Your task to perform on an android device: turn on airplane mode Image 0: 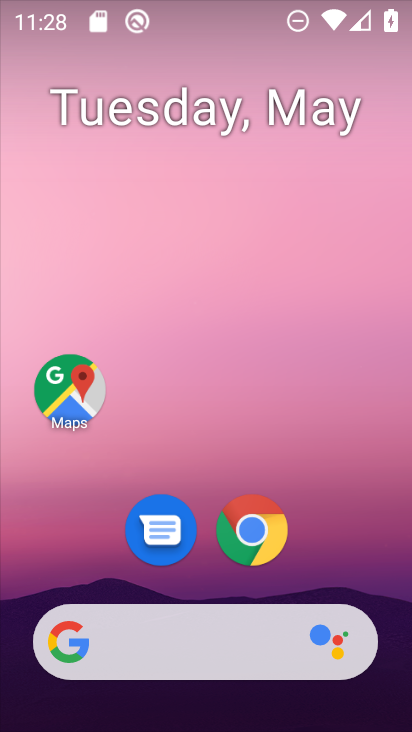
Step 0: drag from (343, 513) to (274, 26)
Your task to perform on an android device: turn on airplane mode Image 1: 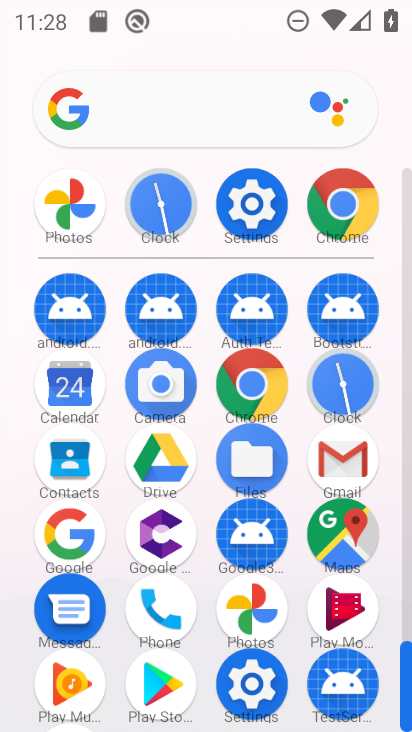
Step 1: click (239, 179)
Your task to perform on an android device: turn on airplane mode Image 2: 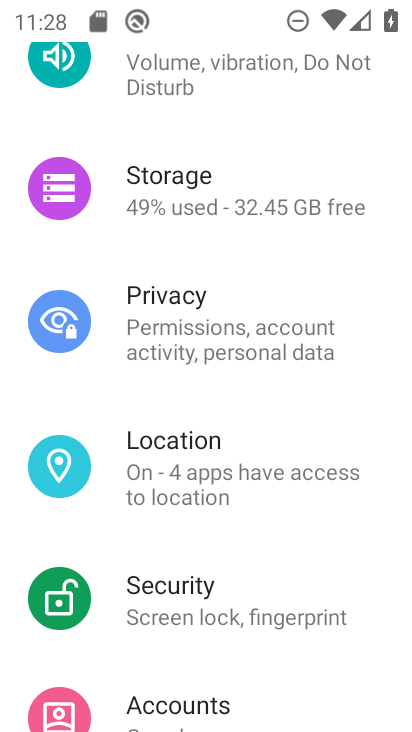
Step 2: drag from (240, 153) to (231, 493)
Your task to perform on an android device: turn on airplane mode Image 3: 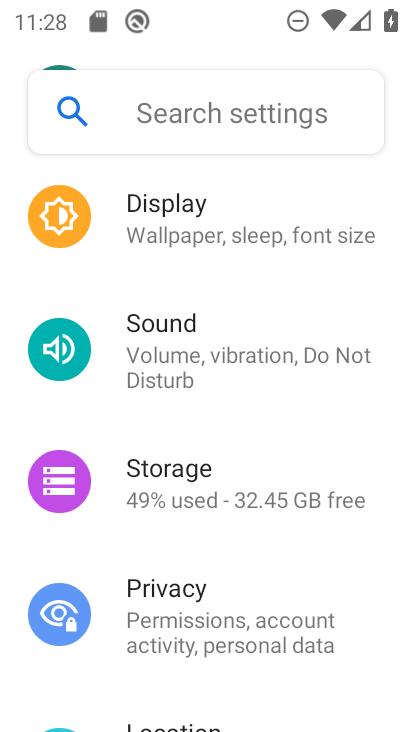
Step 3: drag from (227, 184) to (251, 486)
Your task to perform on an android device: turn on airplane mode Image 4: 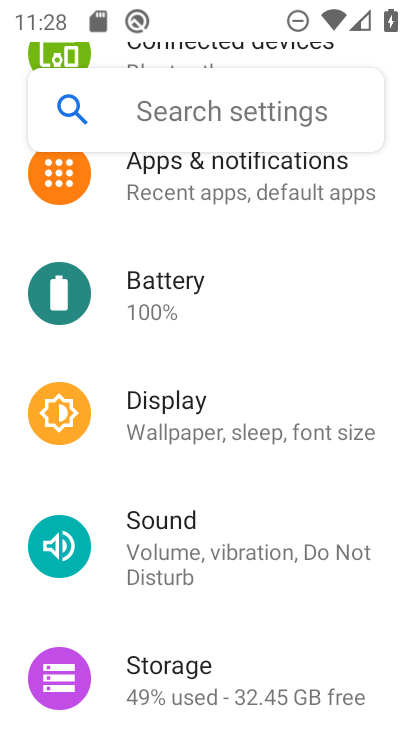
Step 4: drag from (237, 277) to (248, 519)
Your task to perform on an android device: turn on airplane mode Image 5: 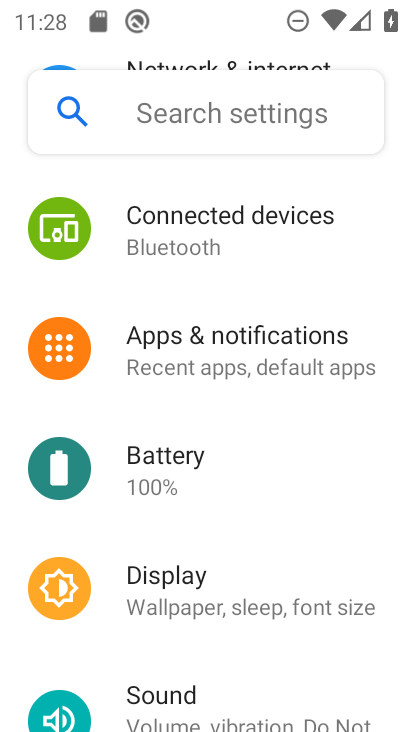
Step 5: drag from (243, 229) to (265, 644)
Your task to perform on an android device: turn on airplane mode Image 6: 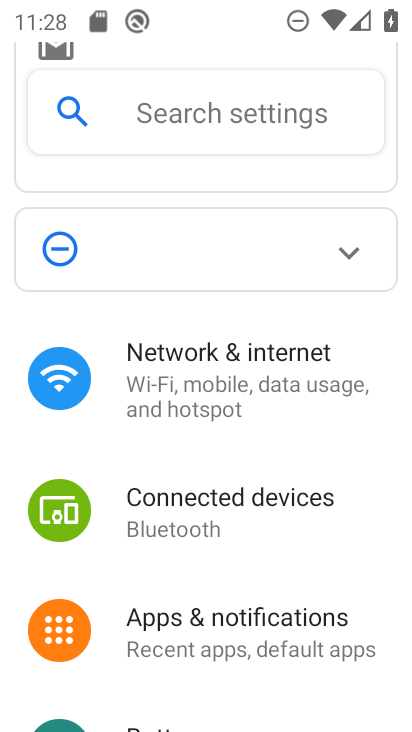
Step 6: click (244, 374)
Your task to perform on an android device: turn on airplane mode Image 7: 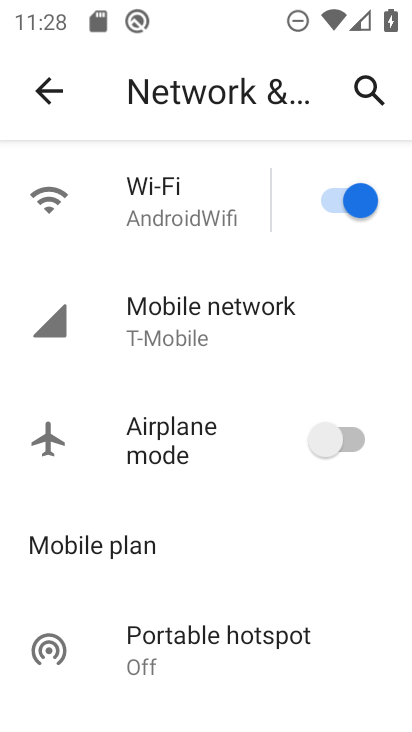
Step 7: click (354, 441)
Your task to perform on an android device: turn on airplane mode Image 8: 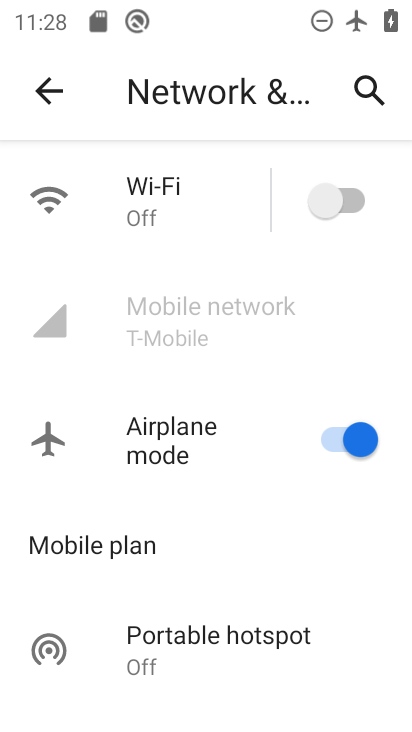
Step 8: press home button
Your task to perform on an android device: turn on airplane mode Image 9: 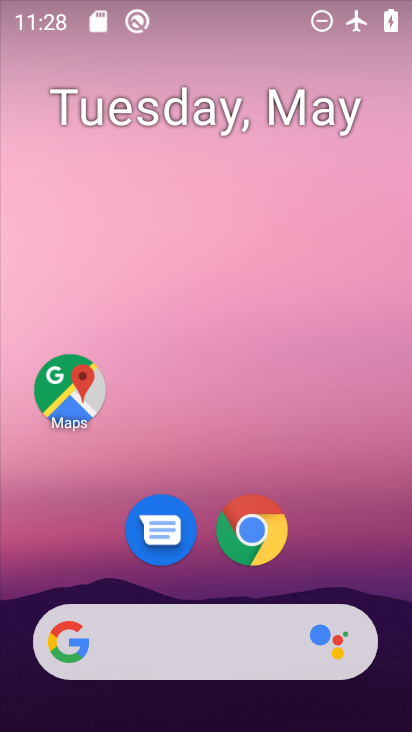
Step 9: drag from (341, 510) to (303, 95)
Your task to perform on an android device: turn on airplane mode Image 10: 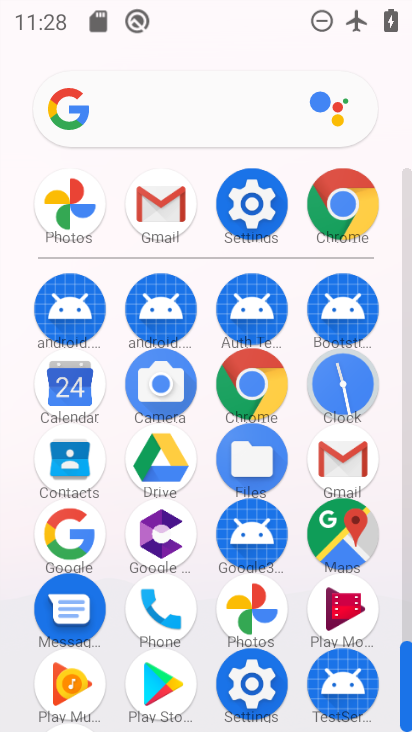
Step 10: click (253, 219)
Your task to perform on an android device: turn on airplane mode Image 11: 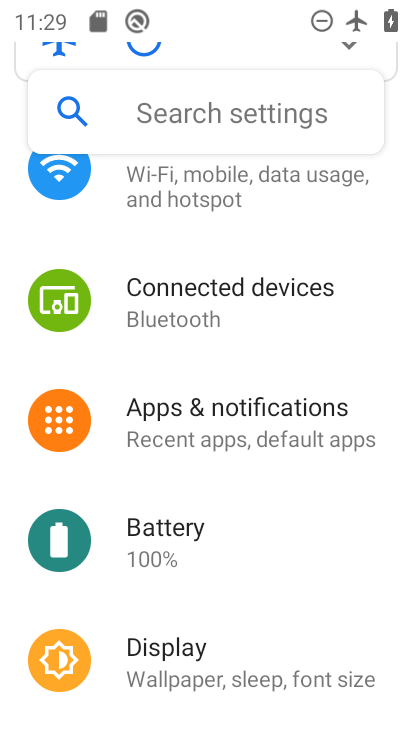
Step 11: click (229, 193)
Your task to perform on an android device: turn on airplane mode Image 12: 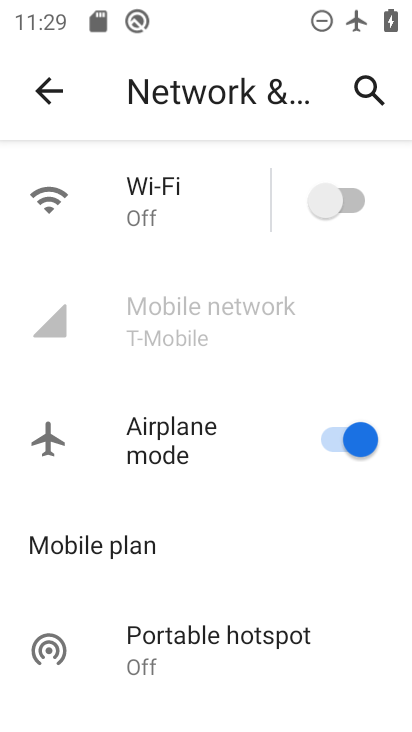
Step 12: task complete